Your task to perform on an android device: toggle show notifications on the lock screen Image 0: 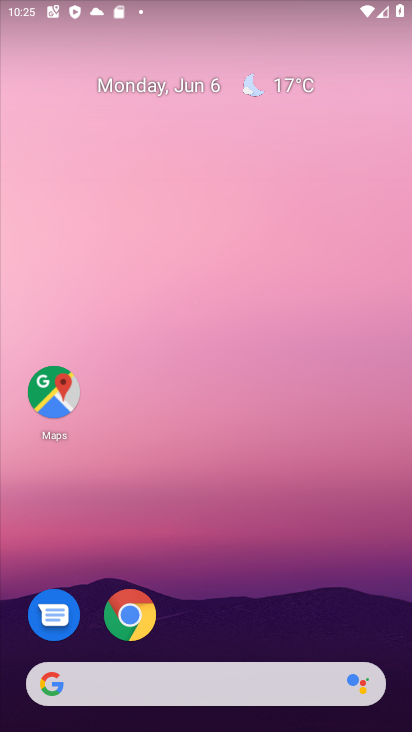
Step 0: drag from (257, 524) to (298, 99)
Your task to perform on an android device: toggle show notifications on the lock screen Image 1: 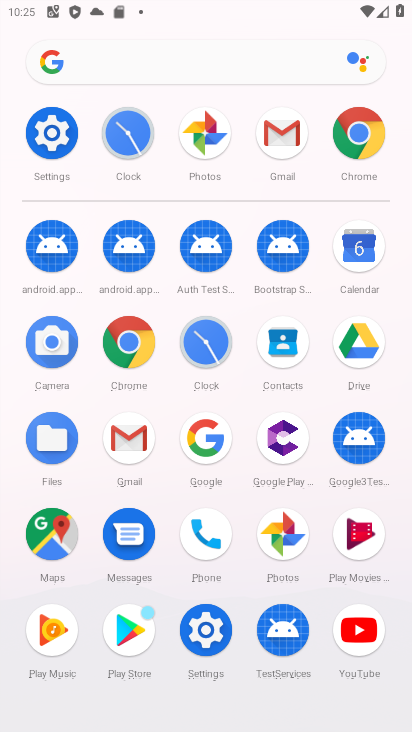
Step 1: click (43, 132)
Your task to perform on an android device: toggle show notifications on the lock screen Image 2: 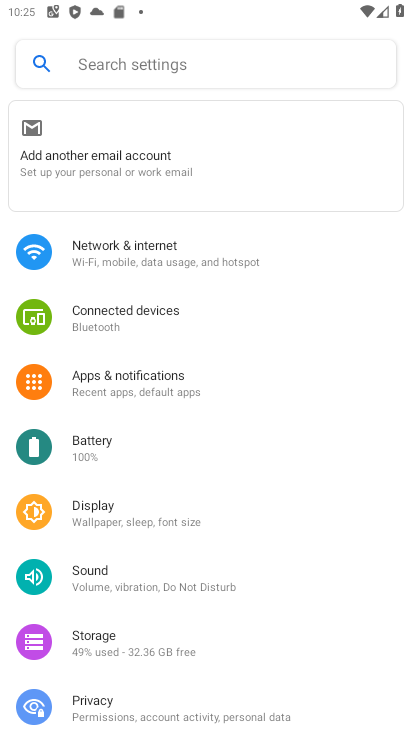
Step 2: click (140, 394)
Your task to perform on an android device: toggle show notifications on the lock screen Image 3: 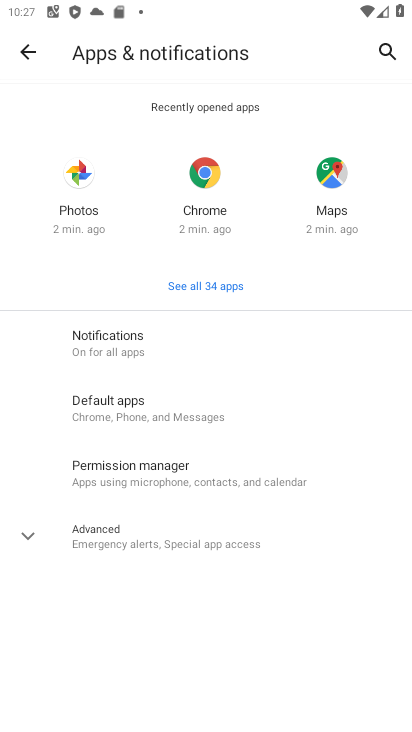
Step 3: click (122, 340)
Your task to perform on an android device: toggle show notifications on the lock screen Image 4: 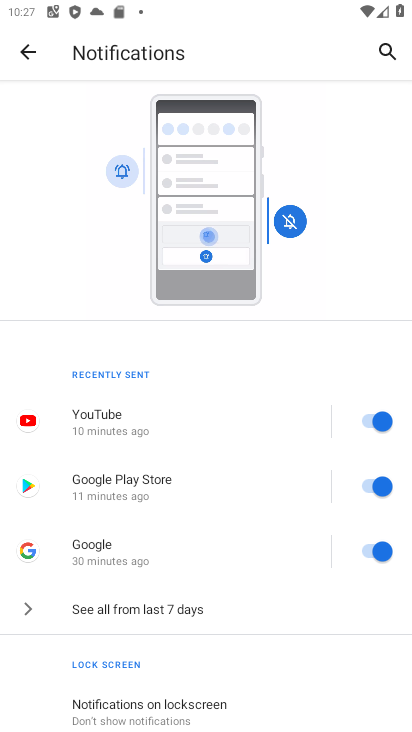
Step 4: click (152, 715)
Your task to perform on an android device: toggle show notifications on the lock screen Image 5: 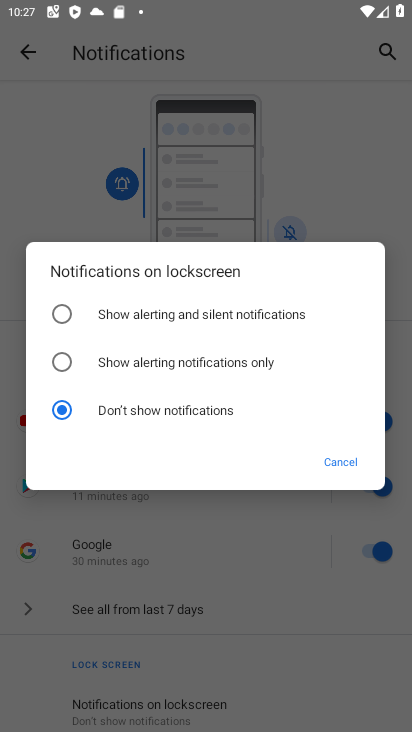
Step 5: click (84, 311)
Your task to perform on an android device: toggle show notifications on the lock screen Image 6: 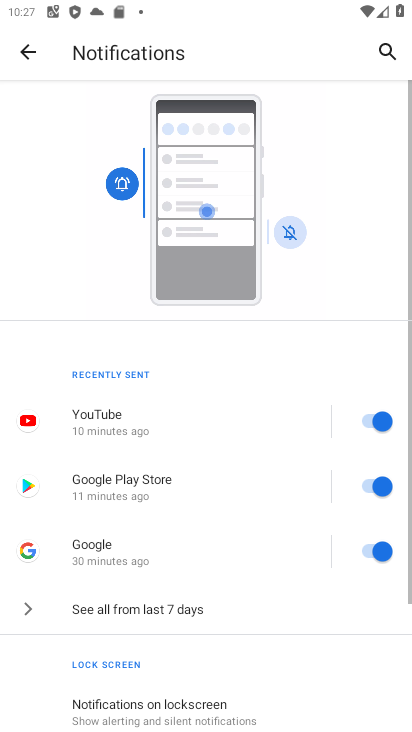
Step 6: task complete